Your task to perform on an android device: Open Google Image 0: 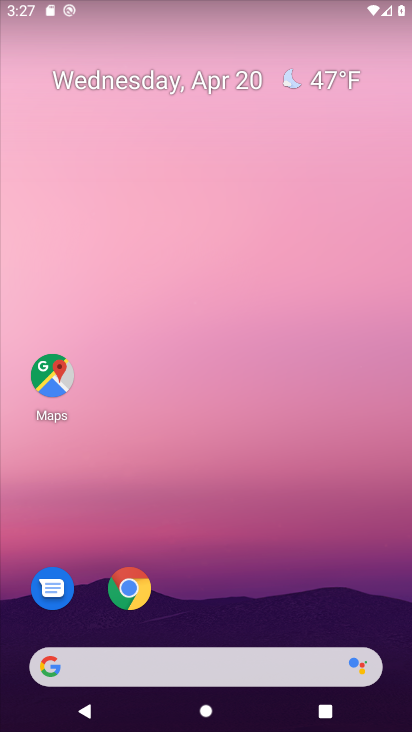
Step 0: drag from (238, 619) to (358, 43)
Your task to perform on an android device: Open Google Image 1: 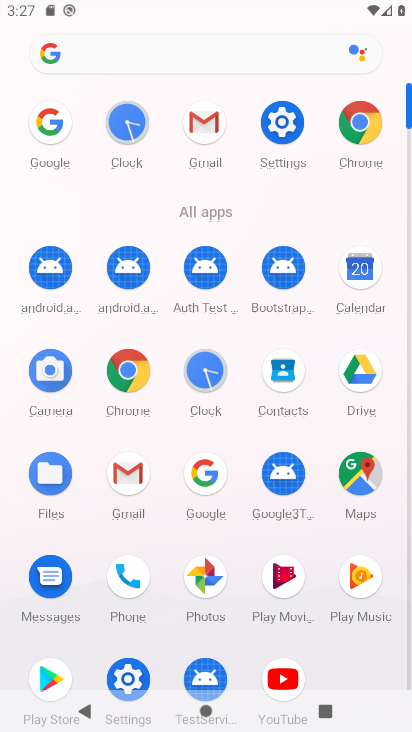
Step 1: click (194, 491)
Your task to perform on an android device: Open Google Image 2: 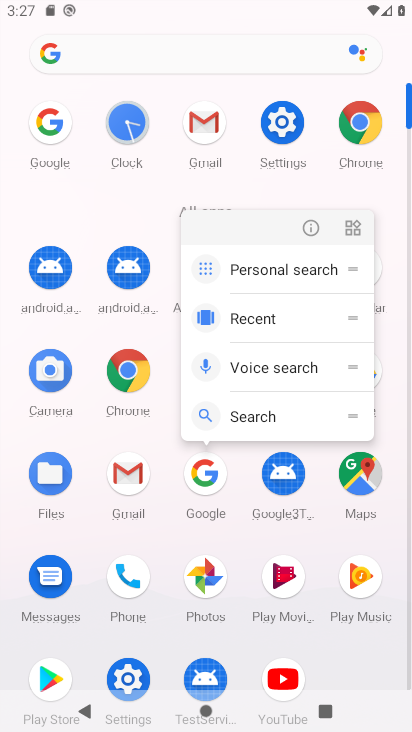
Step 2: click (202, 484)
Your task to perform on an android device: Open Google Image 3: 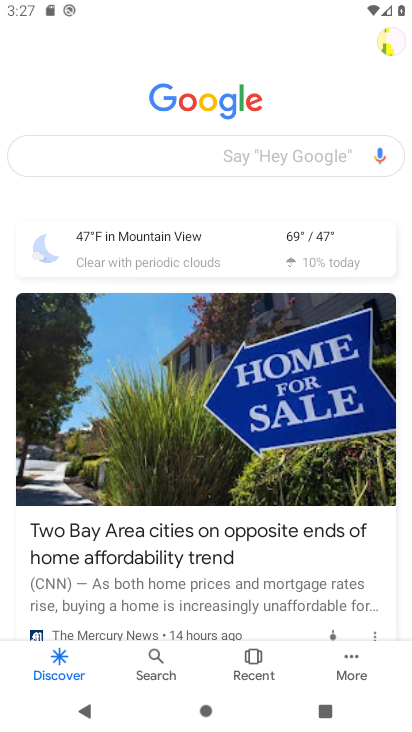
Step 3: task complete